Your task to perform on an android device: Play the last video I watched on Youtube Image 0: 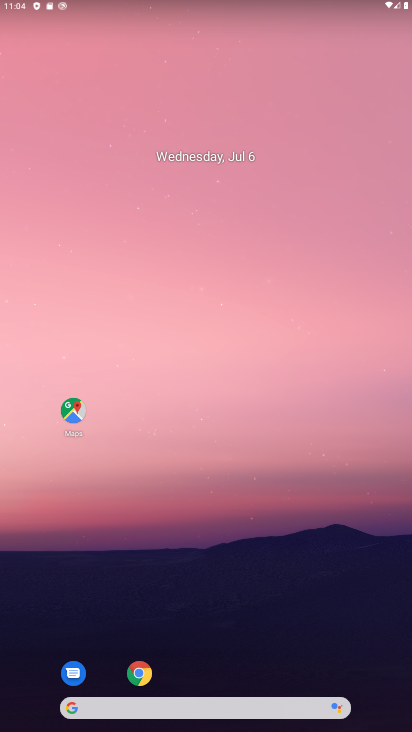
Step 0: drag from (25, 633) to (330, 130)
Your task to perform on an android device: Play the last video I watched on Youtube Image 1: 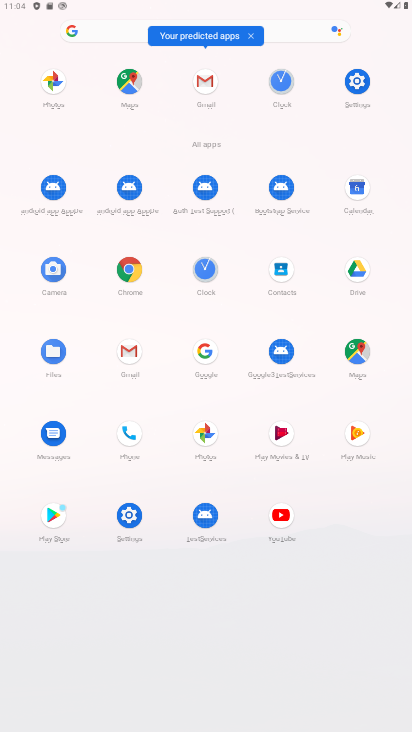
Step 1: click (280, 524)
Your task to perform on an android device: Play the last video I watched on Youtube Image 2: 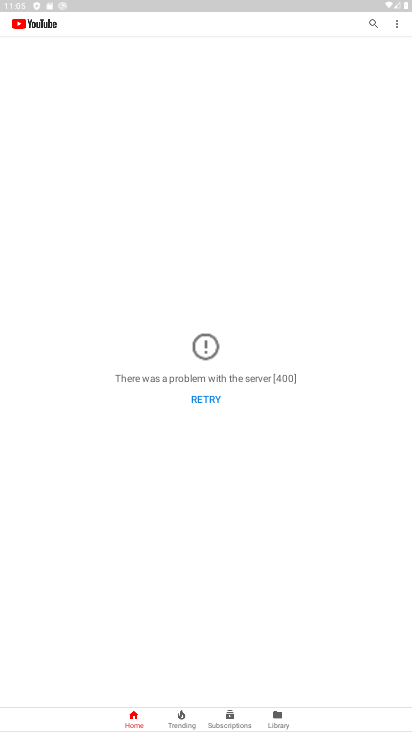
Step 2: task complete